Your task to perform on an android device: Open the stopwatch Image 0: 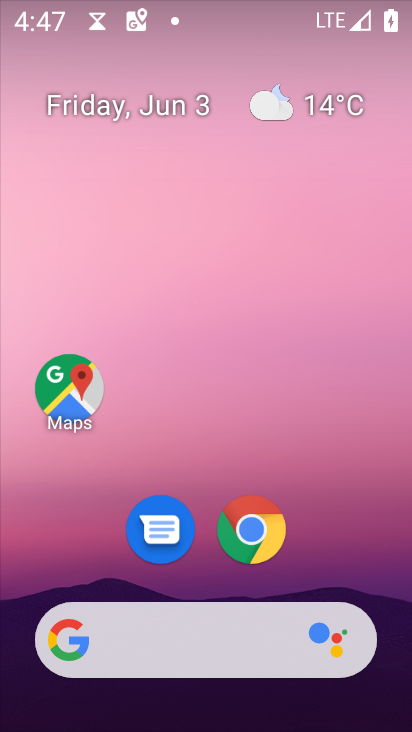
Step 0: drag from (357, 564) to (361, 100)
Your task to perform on an android device: Open the stopwatch Image 1: 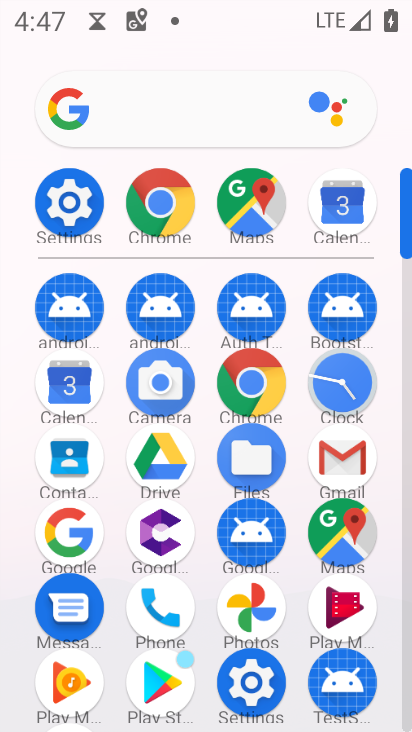
Step 1: click (352, 382)
Your task to perform on an android device: Open the stopwatch Image 2: 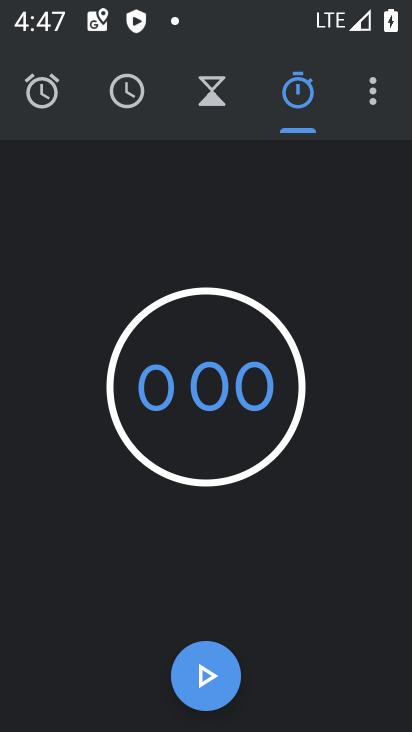
Step 2: task complete